Your task to perform on an android device: Go to Android settings Image 0: 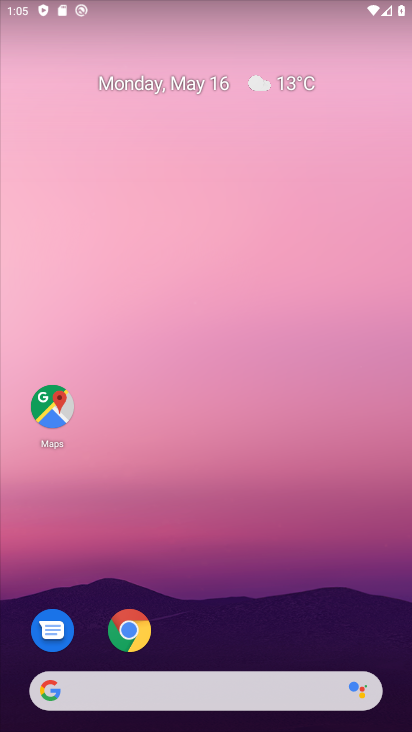
Step 0: drag from (286, 579) to (240, 224)
Your task to perform on an android device: Go to Android settings Image 1: 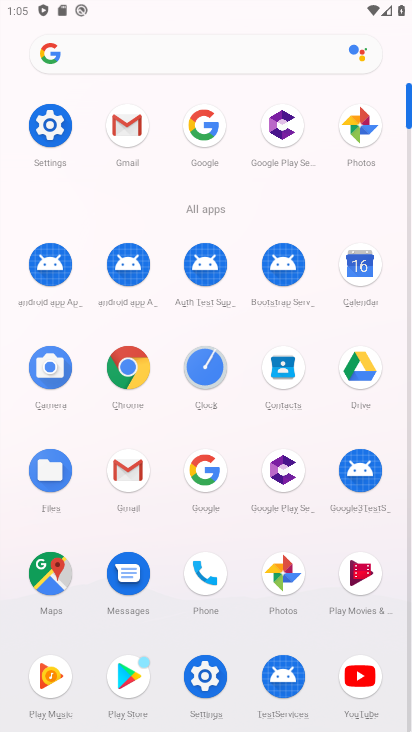
Step 1: click (54, 131)
Your task to perform on an android device: Go to Android settings Image 2: 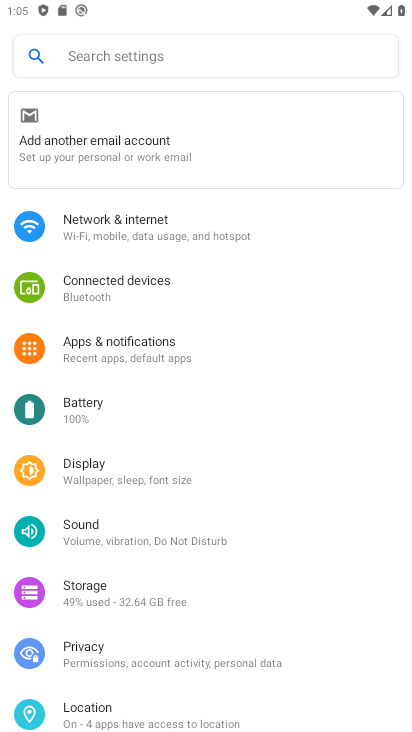
Step 2: task complete